Your task to perform on an android device: Find coffee shops on Maps Image 0: 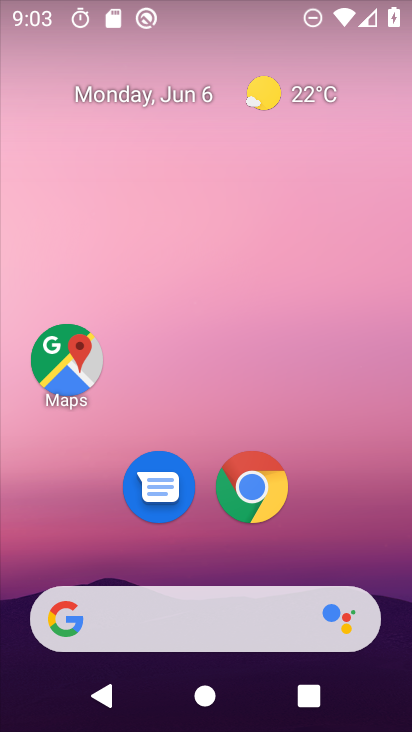
Step 0: drag from (394, 622) to (291, 35)
Your task to perform on an android device: Find coffee shops on Maps Image 1: 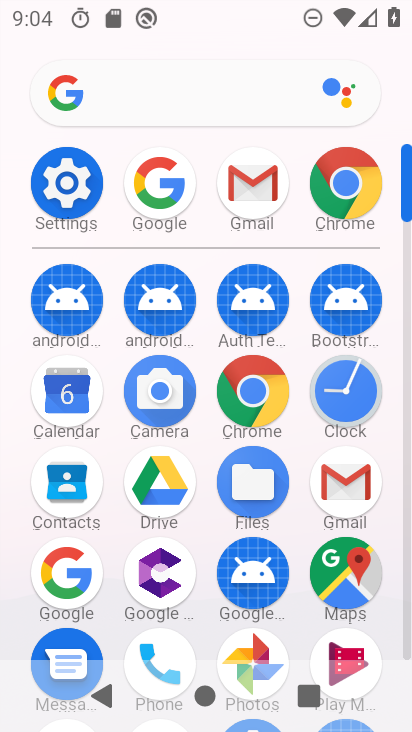
Step 1: click (323, 578)
Your task to perform on an android device: Find coffee shops on Maps Image 2: 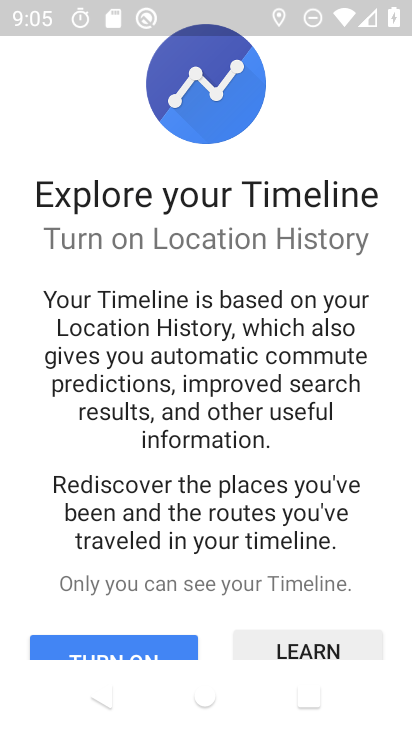
Step 2: press back button
Your task to perform on an android device: Find coffee shops on Maps Image 3: 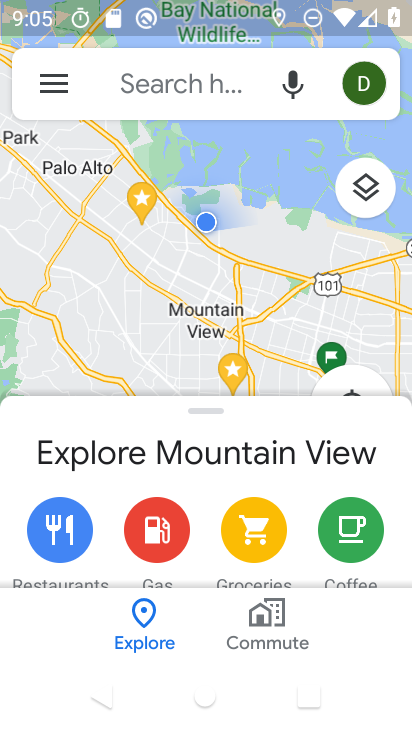
Step 3: click (141, 95)
Your task to perform on an android device: Find coffee shops on Maps Image 4: 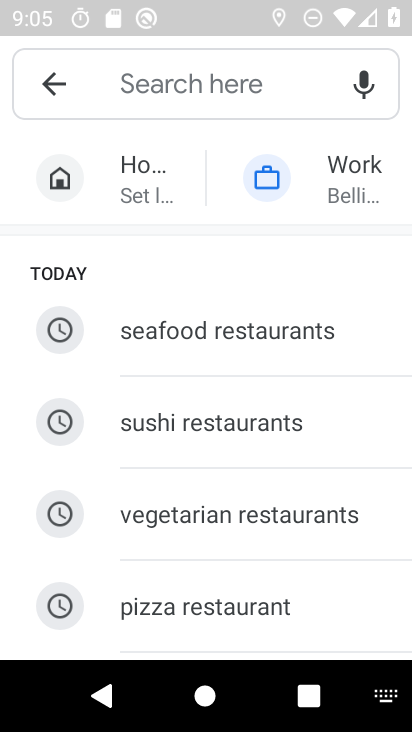
Step 4: type "coffee"
Your task to perform on an android device: Find coffee shops on Maps Image 5: 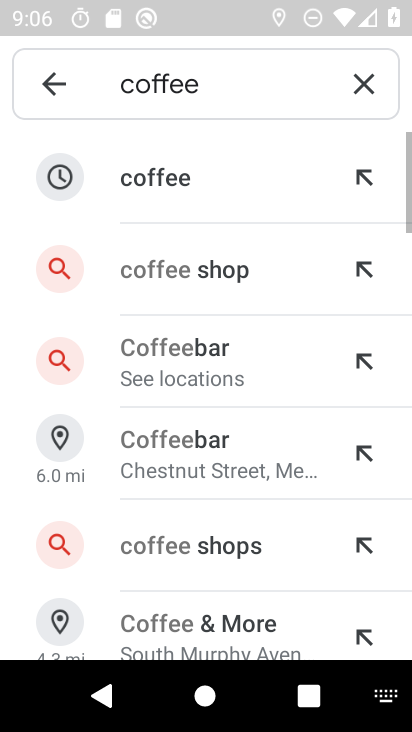
Step 5: click (235, 168)
Your task to perform on an android device: Find coffee shops on Maps Image 6: 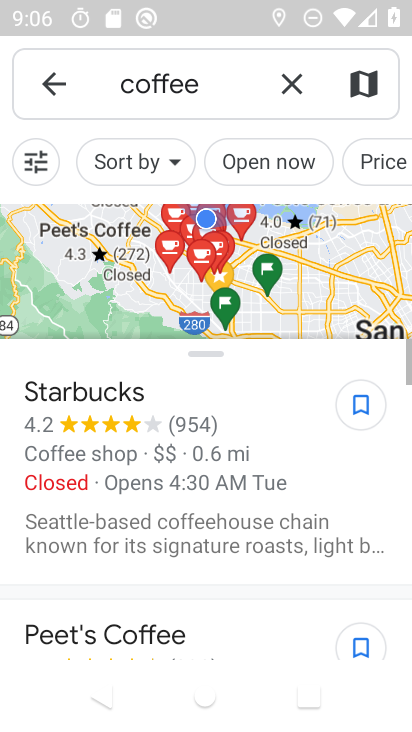
Step 6: task complete